Your task to perform on an android device: Open calendar and show me the second week of next month Image 0: 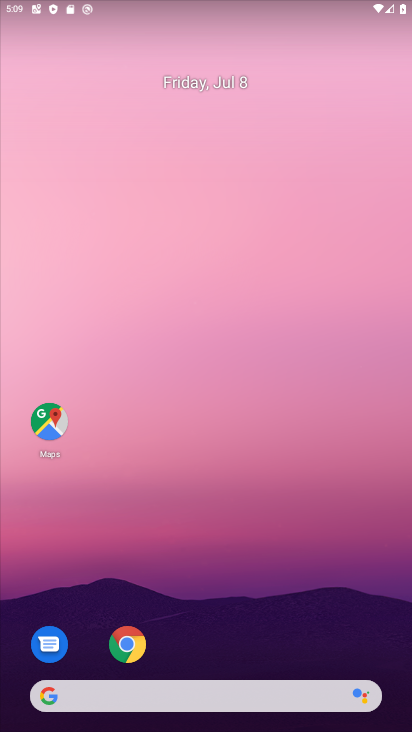
Step 0: drag from (172, 353) to (134, 112)
Your task to perform on an android device: Open calendar and show me the second week of next month Image 1: 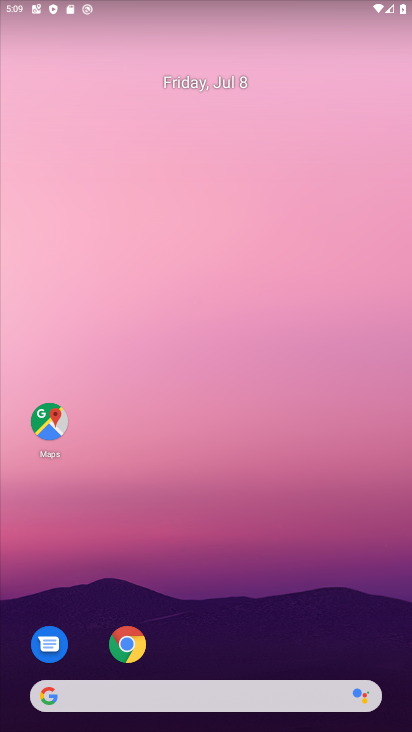
Step 1: task complete